Your task to perform on an android device: Go to privacy settings Image 0: 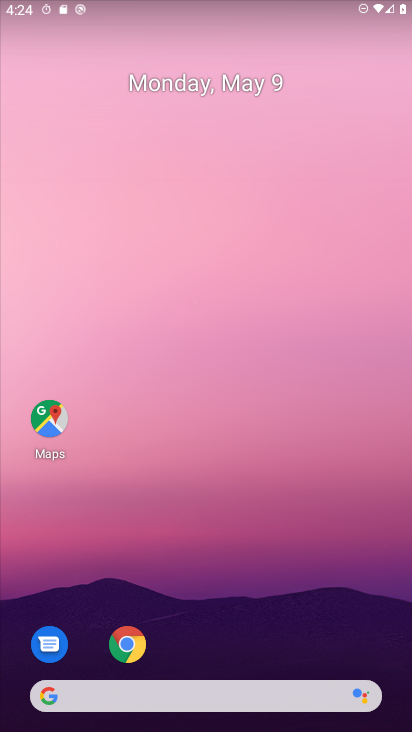
Step 0: drag from (220, 574) to (201, 112)
Your task to perform on an android device: Go to privacy settings Image 1: 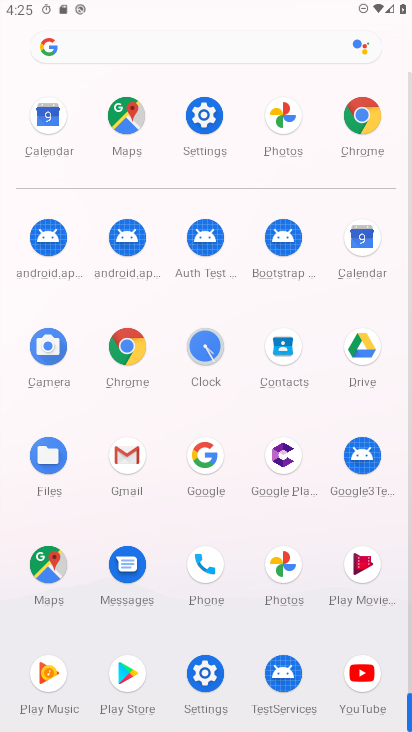
Step 1: click (197, 146)
Your task to perform on an android device: Go to privacy settings Image 2: 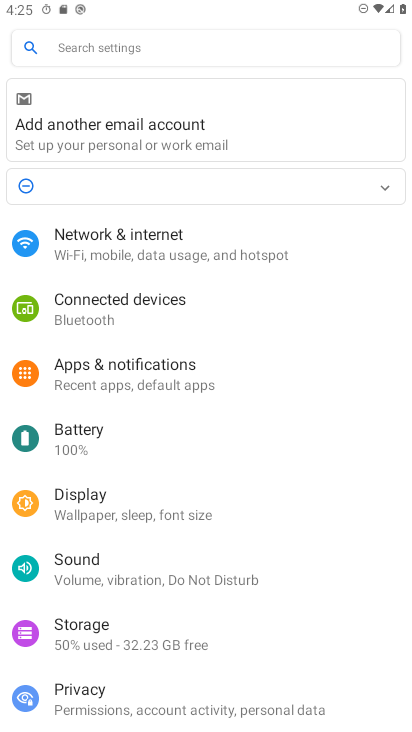
Step 2: click (112, 693)
Your task to perform on an android device: Go to privacy settings Image 3: 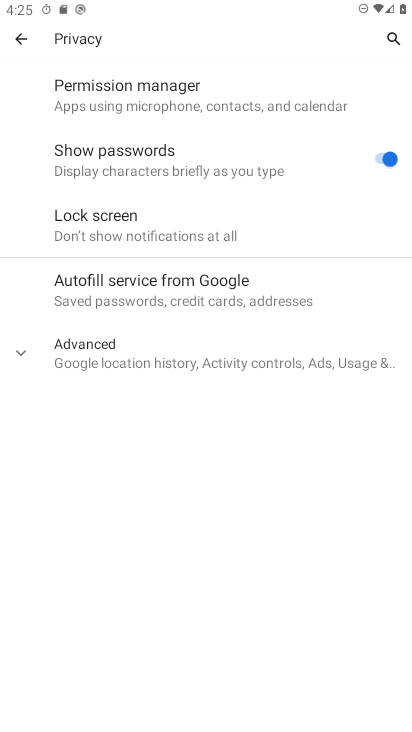
Step 3: task complete